Your task to perform on an android device: Open maps Image 0: 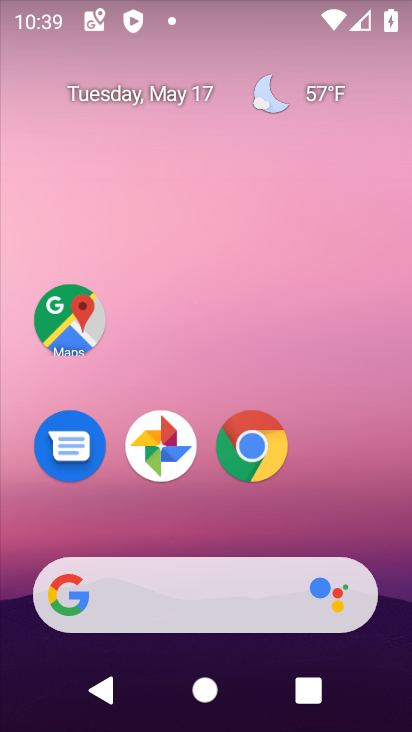
Step 0: click (89, 337)
Your task to perform on an android device: Open maps Image 1: 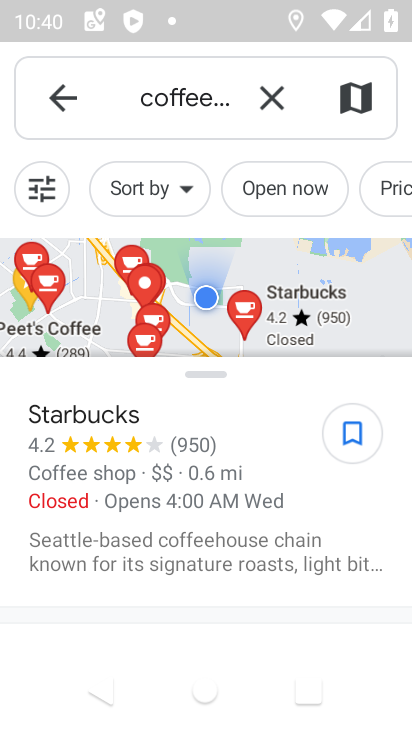
Step 1: task complete